Your task to perform on an android device: Go to Amazon Image 0: 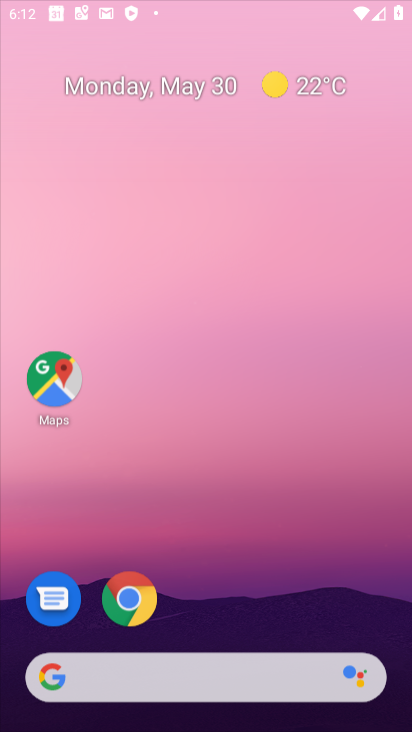
Step 0: press home button
Your task to perform on an android device: Go to Amazon Image 1: 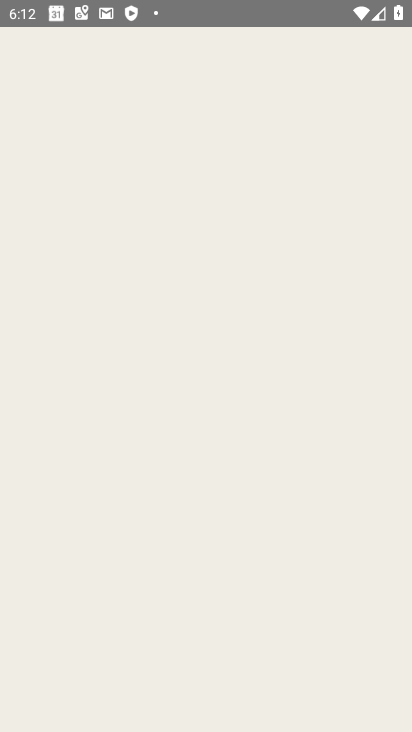
Step 1: drag from (243, 632) to (257, 158)
Your task to perform on an android device: Go to Amazon Image 2: 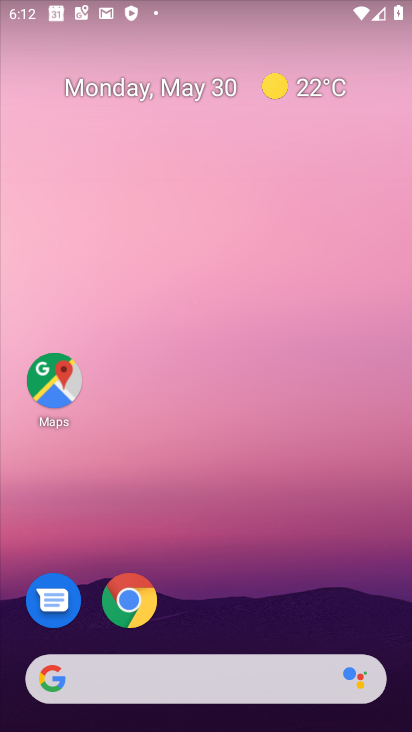
Step 2: click (47, 687)
Your task to perform on an android device: Go to Amazon Image 3: 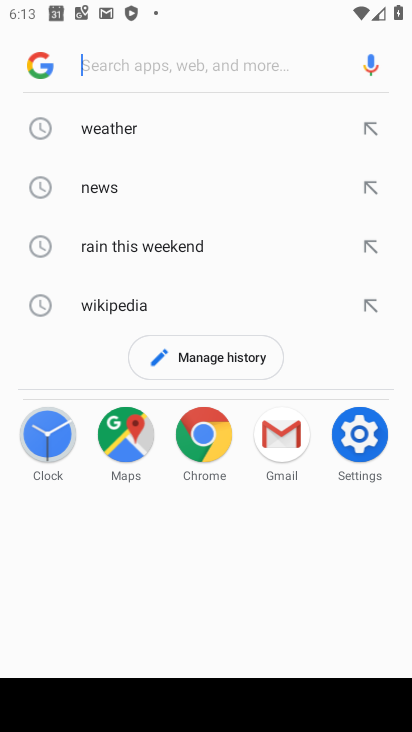
Step 3: type "Amazon"
Your task to perform on an android device: Go to Amazon Image 4: 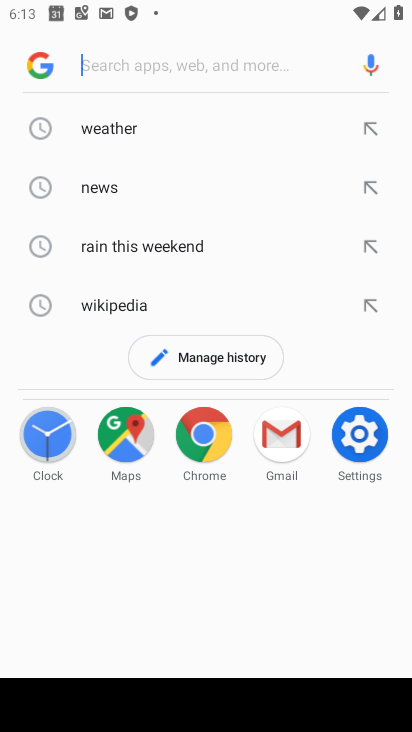
Step 4: click (218, 43)
Your task to perform on an android device: Go to Amazon Image 5: 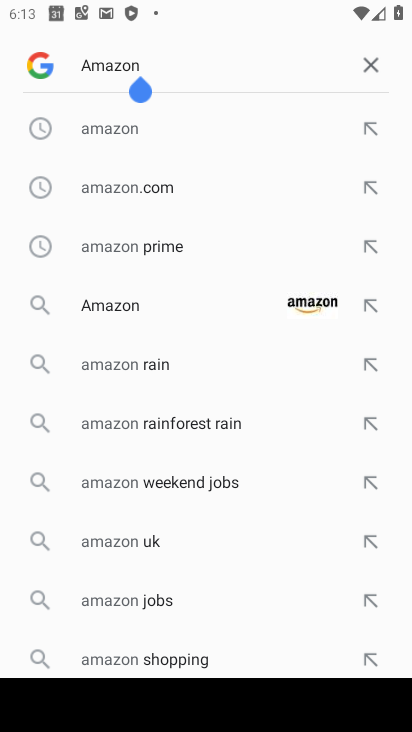
Step 5: click (112, 134)
Your task to perform on an android device: Go to Amazon Image 6: 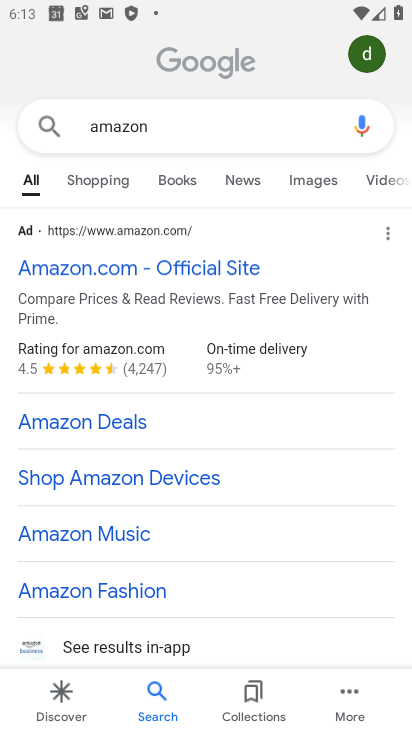
Step 6: click (120, 274)
Your task to perform on an android device: Go to Amazon Image 7: 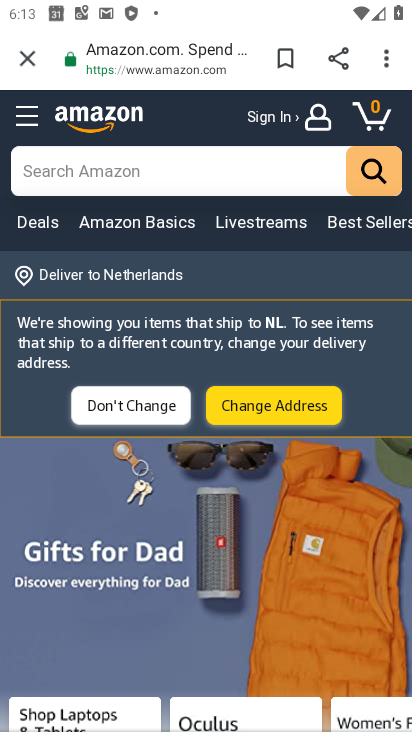
Step 7: task complete